Your task to perform on an android device: Add "macbook" to the cart on walmart.com Image 0: 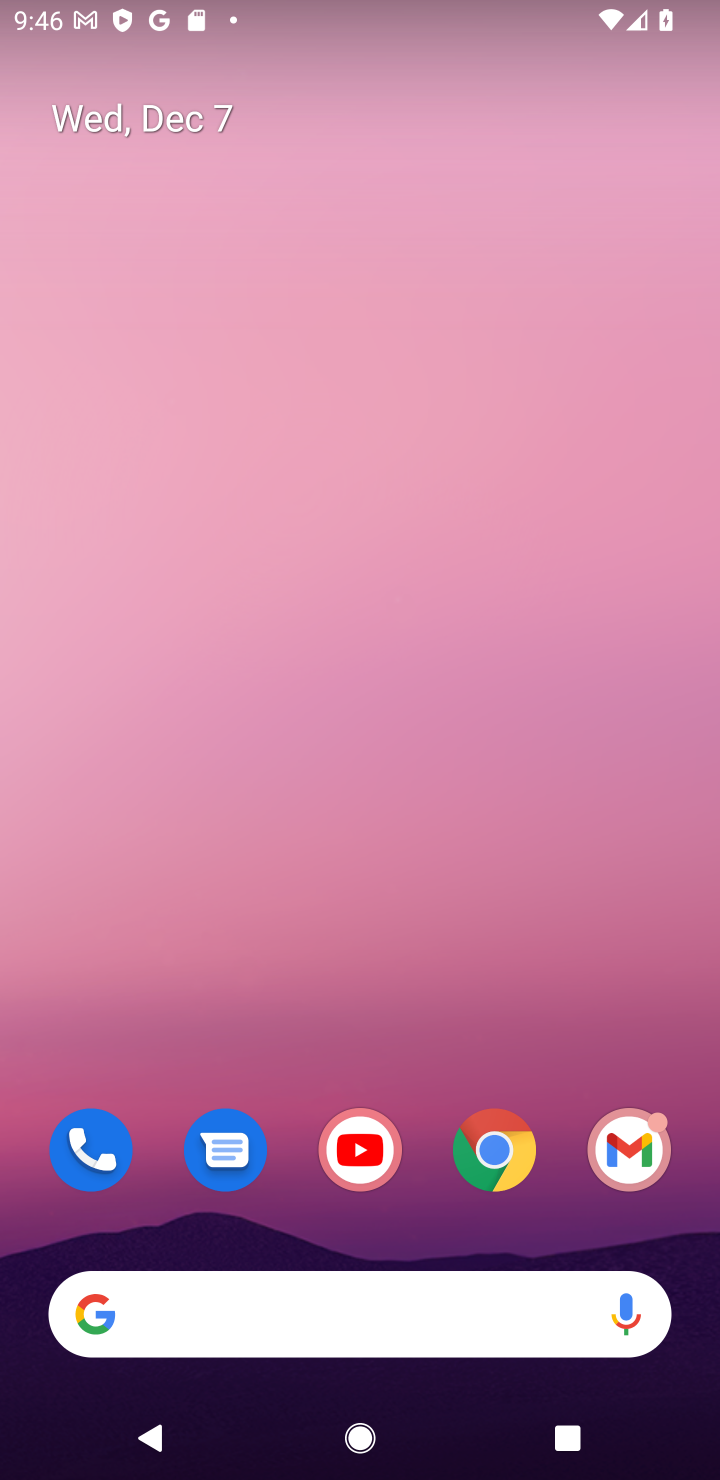
Step 0: click (510, 1170)
Your task to perform on an android device: Add "macbook" to the cart on walmart.com Image 1: 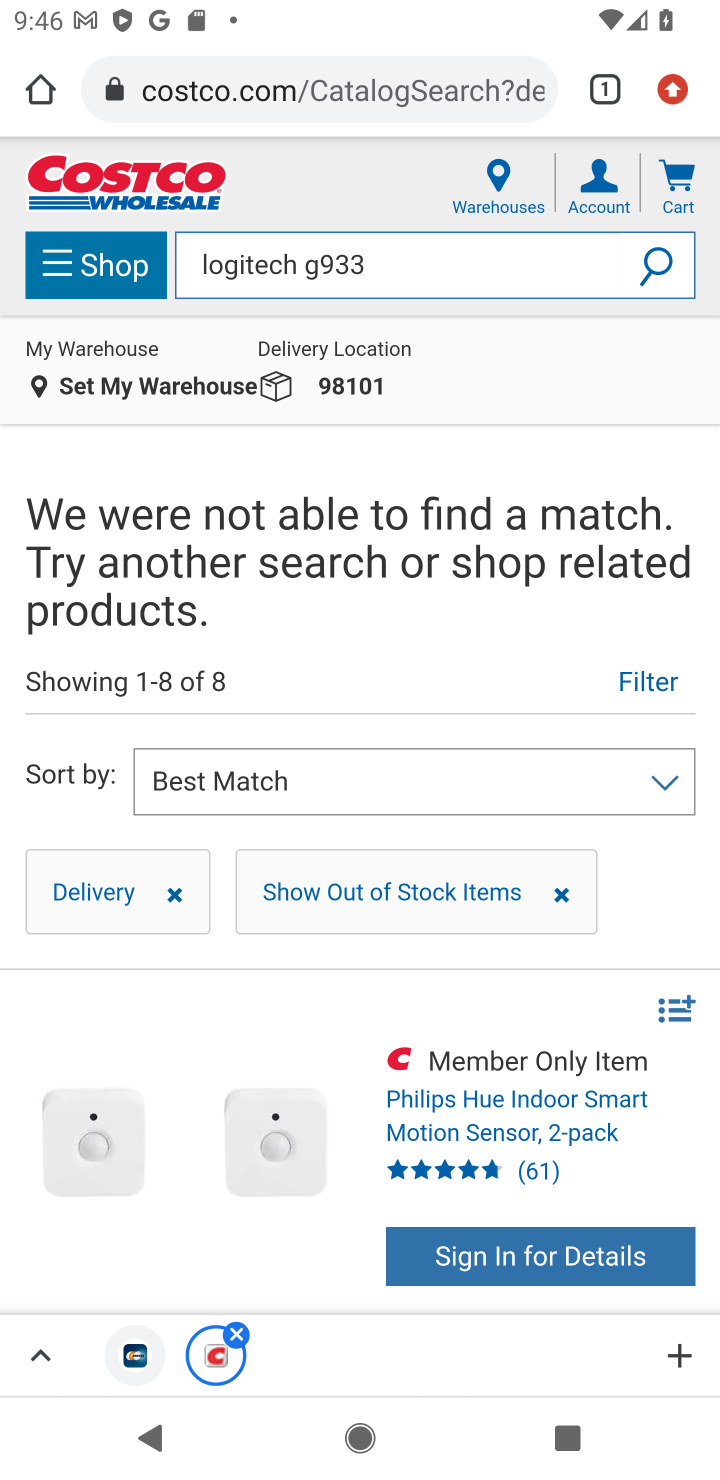
Step 1: click (415, 82)
Your task to perform on an android device: Add "macbook" to the cart on walmart.com Image 2: 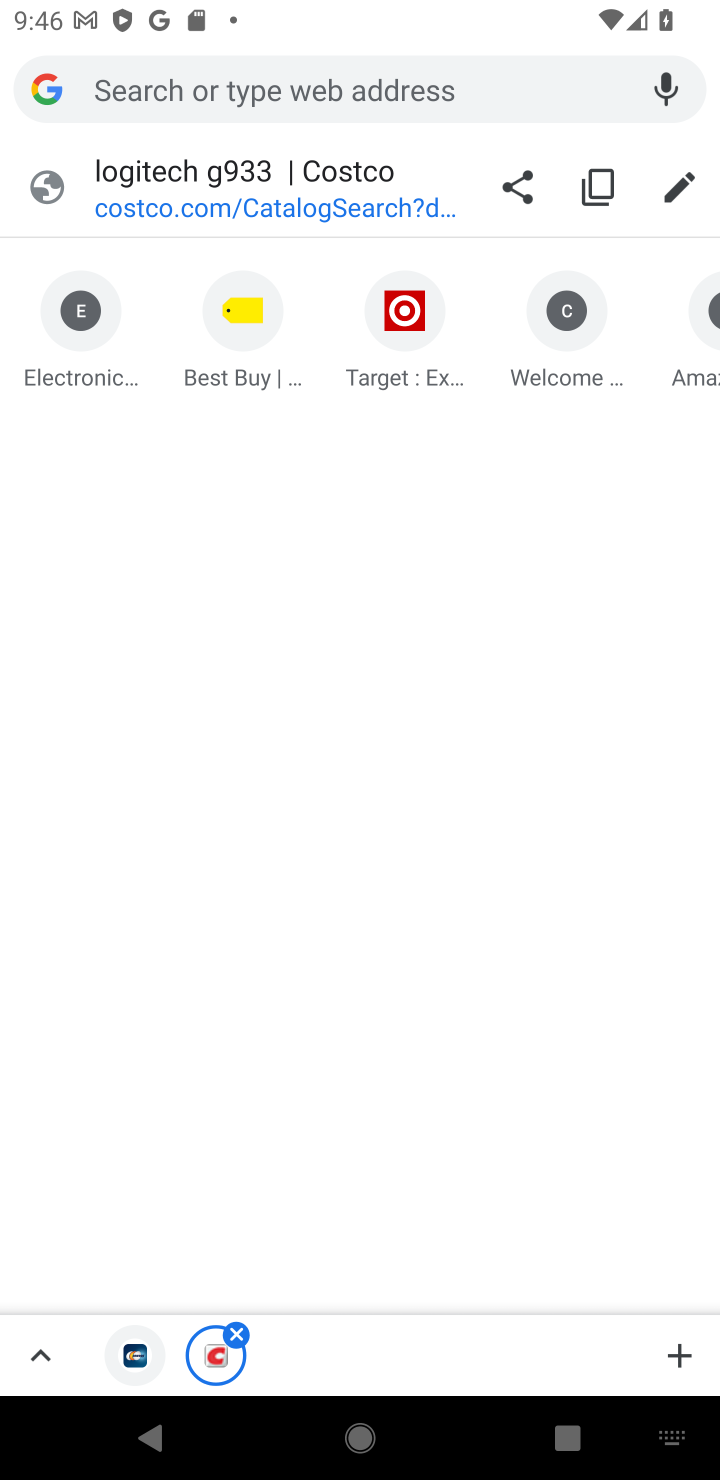
Step 2: type "walmart.com"
Your task to perform on an android device: Add "macbook" to the cart on walmart.com Image 3: 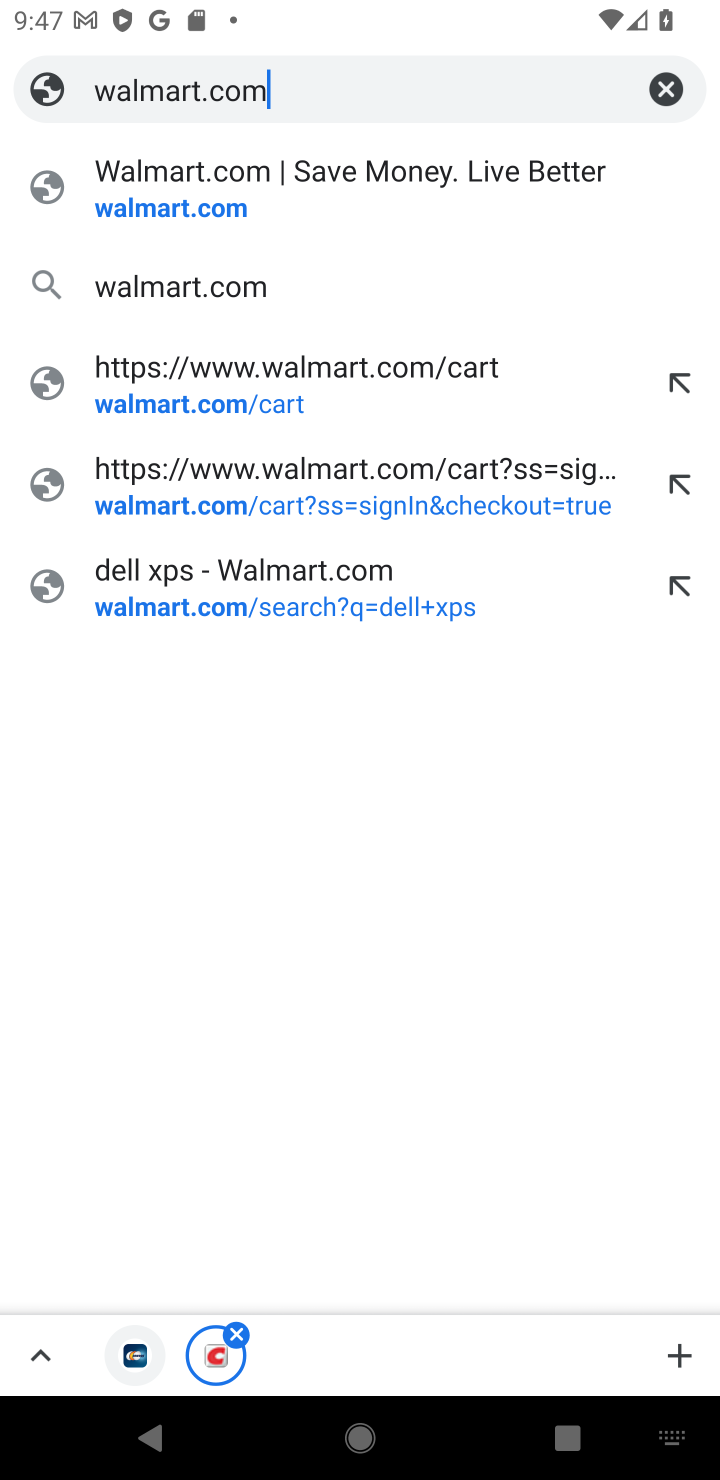
Step 3: click (241, 289)
Your task to perform on an android device: Add "macbook" to the cart on walmart.com Image 4: 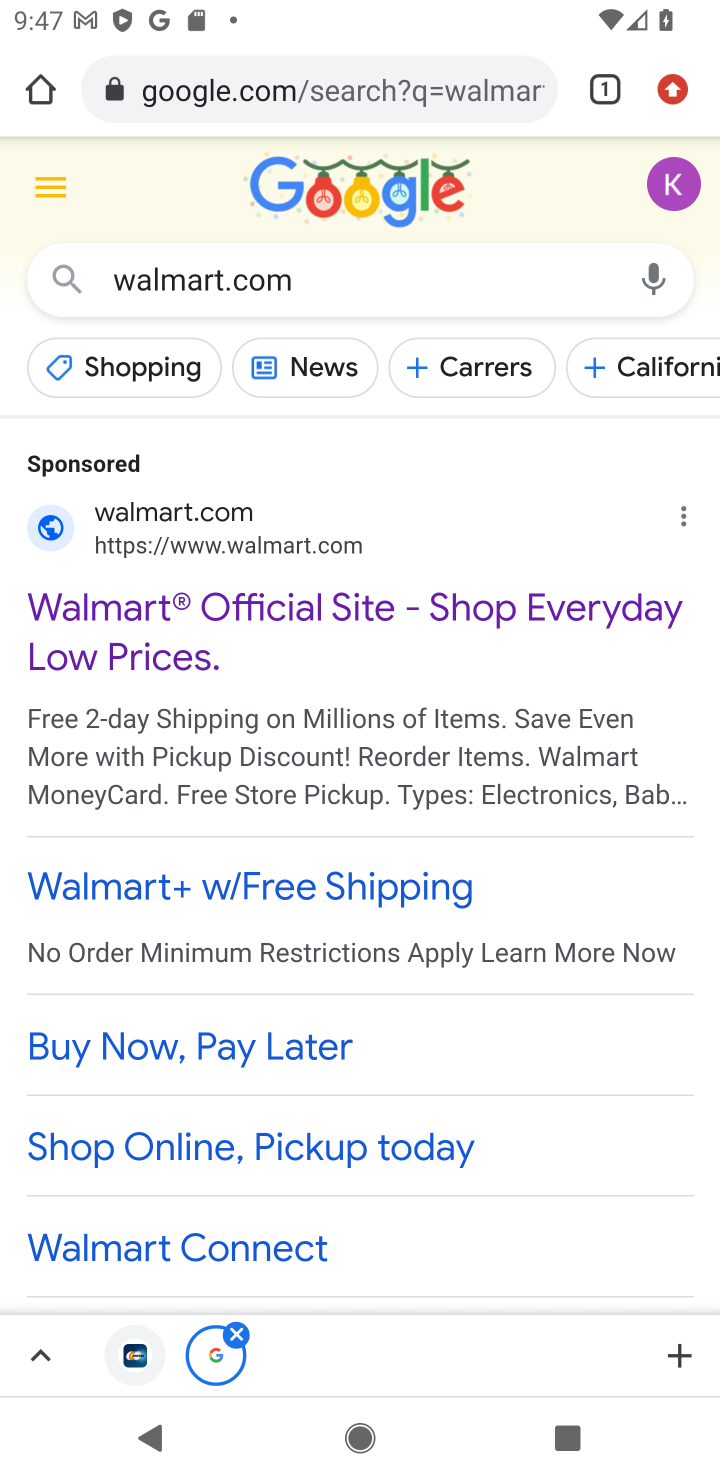
Step 4: drag from (494, 1127) to (491, 509)
Your task to perform on an android device: Add "macbook" to the cart on walmart.com Image 5: 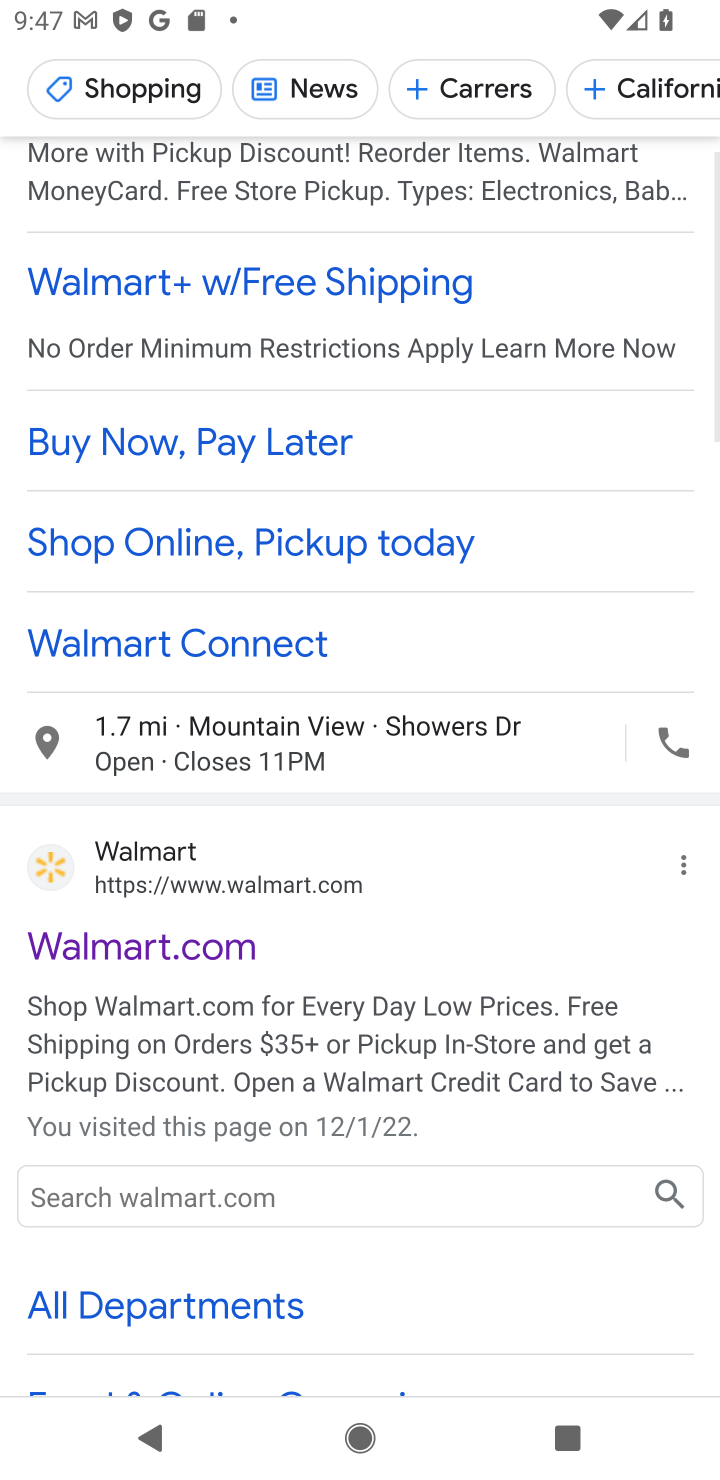
Step 5: click (292, 881)
Your task to perform on an android device: Add "macbook" to the cart on walmart.com Image 6: 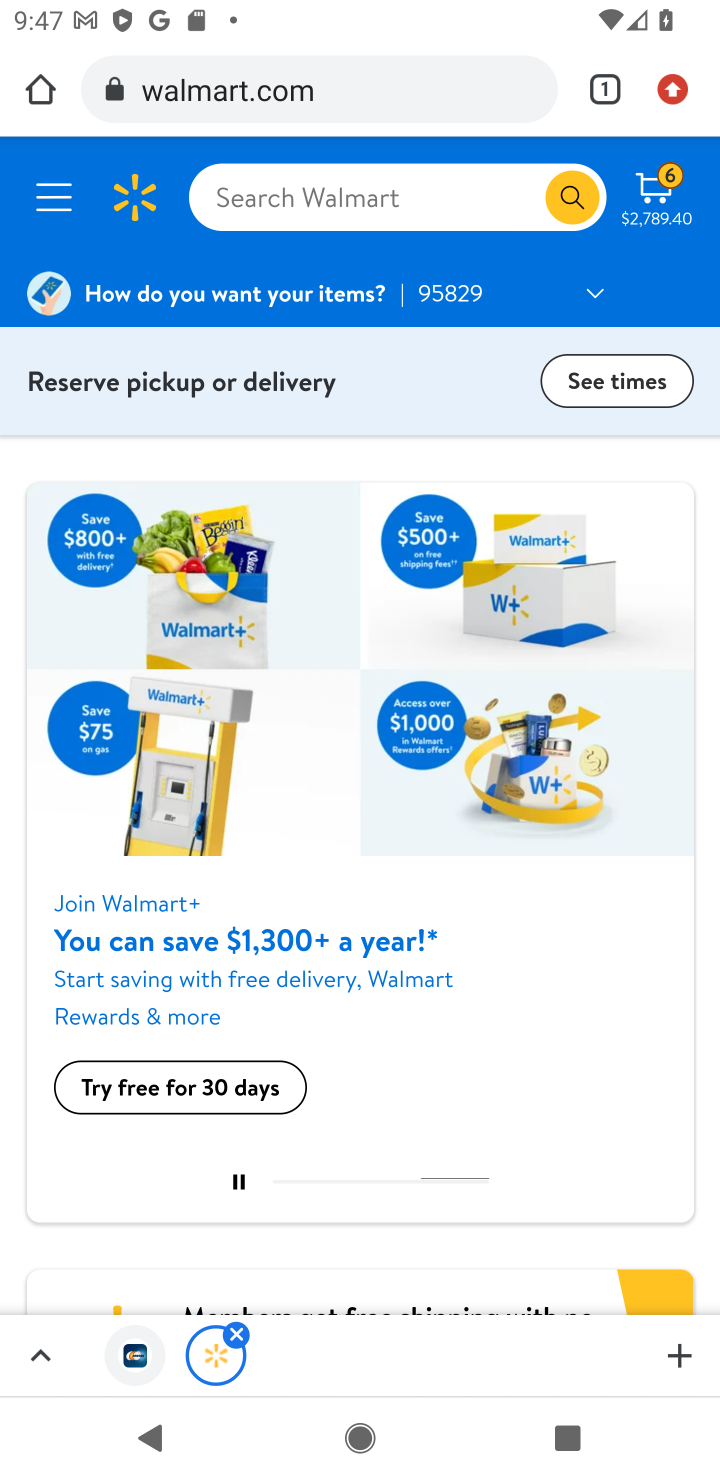
Step 6: click (432, 200)
Your task to perform on an android device: Add "macbook" to the cart on walmart.com Image 7: 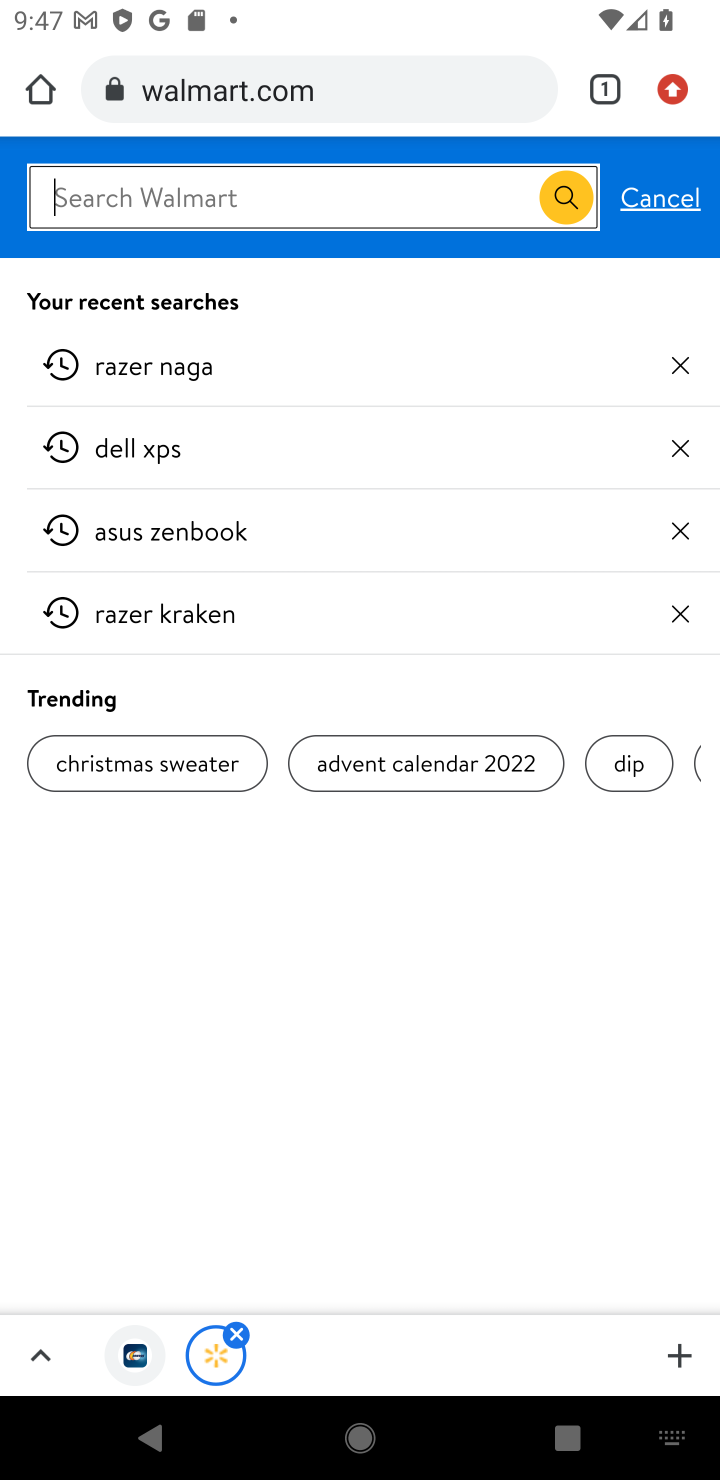
Step 7: type "macbook"
Your task to perform on an android device: Add "macbook" to the cart on walmart.com Image 8: 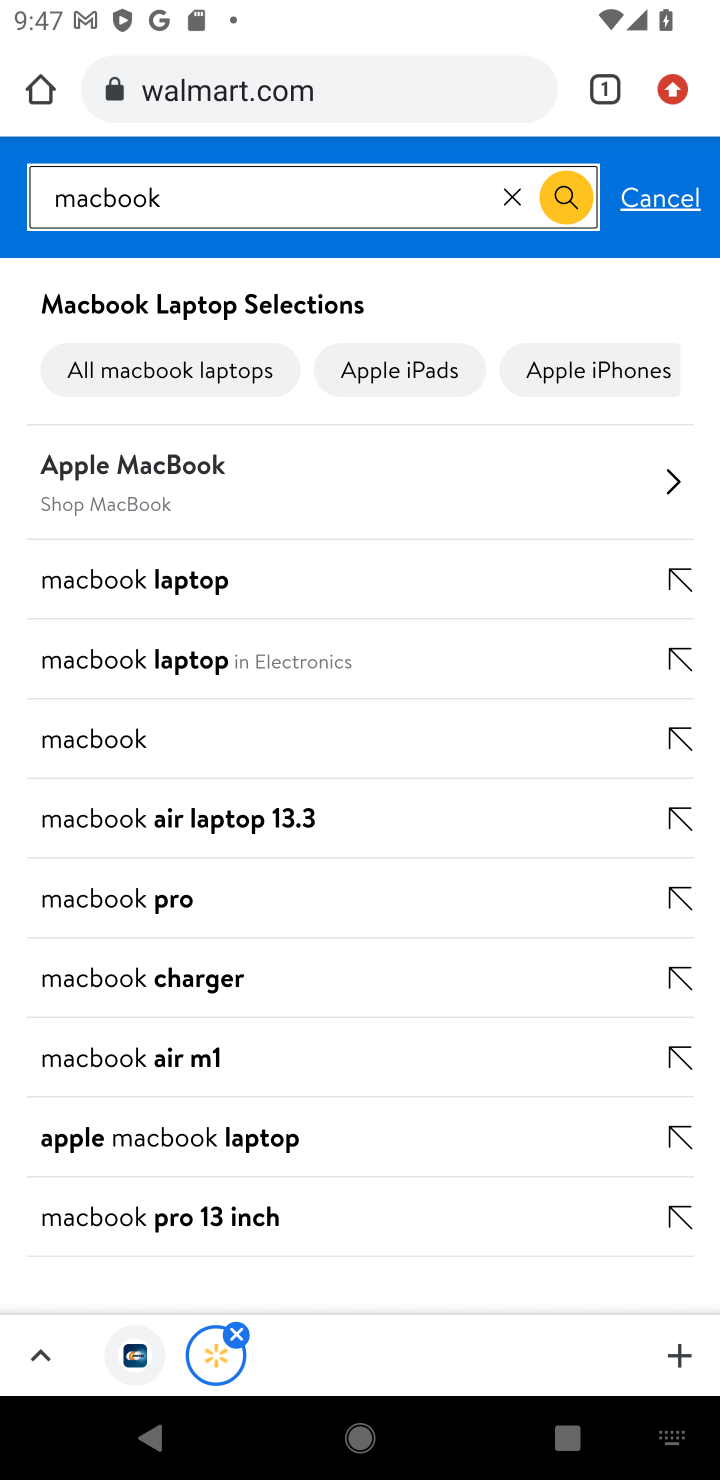
Step 8: click (104, 729)
Your task to perform on an android device: Add "macbook" to the cart on walmart.com Image 9: 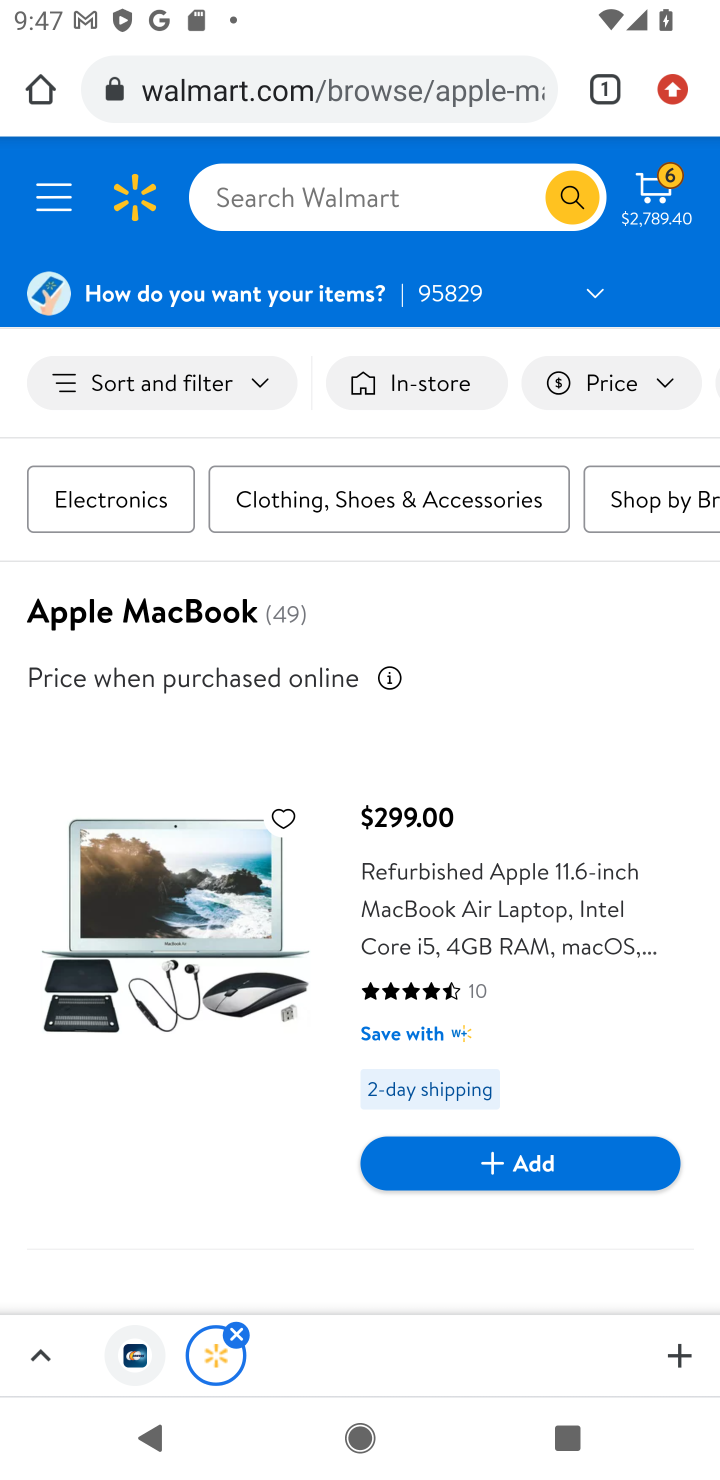
Step 9: drag from (515, 866) to (481, 304)
Your task to perform on an android device: Add "macbook" to the cart on walmart.com Image 10: 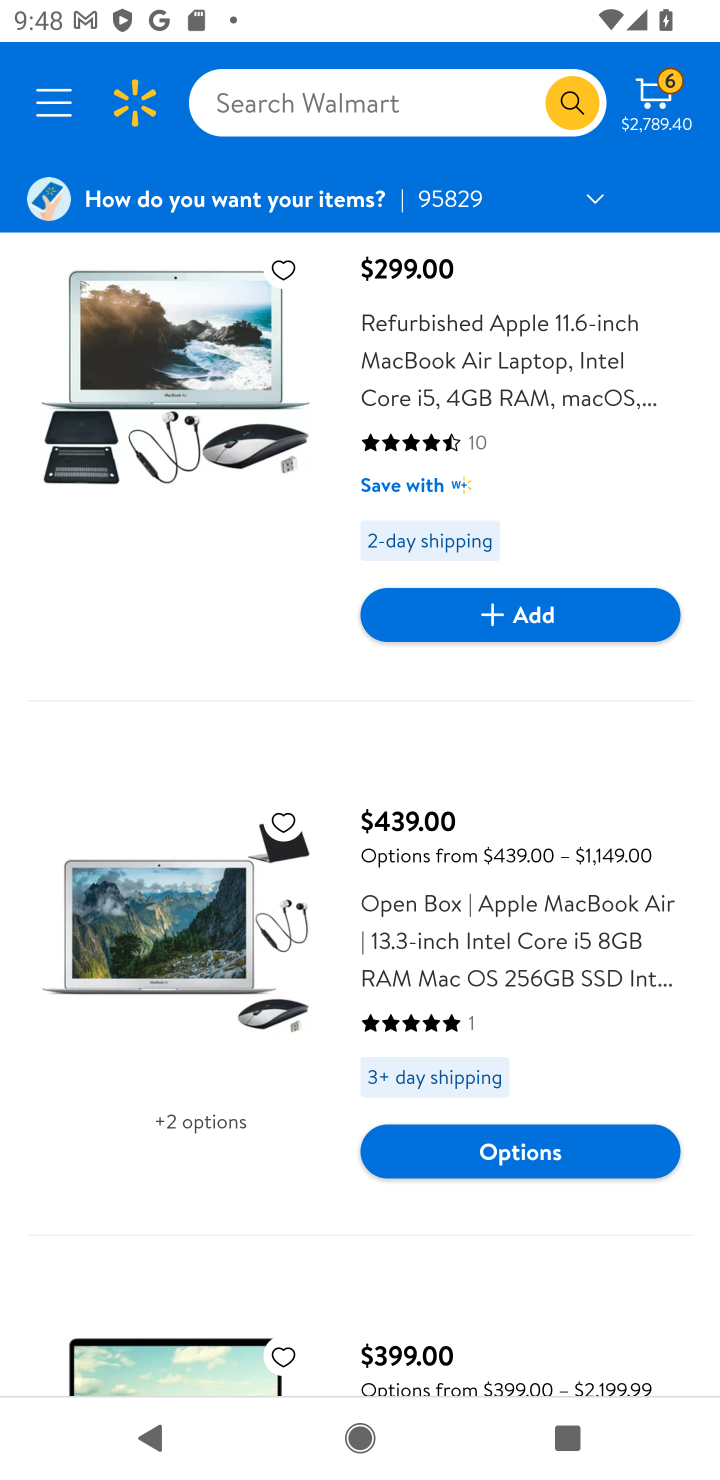
Step 10: drag from (456, 608) to (579, 1085)
Your task to perform on an android device: Add "macbook" to the cart on walmart.com Image 11: 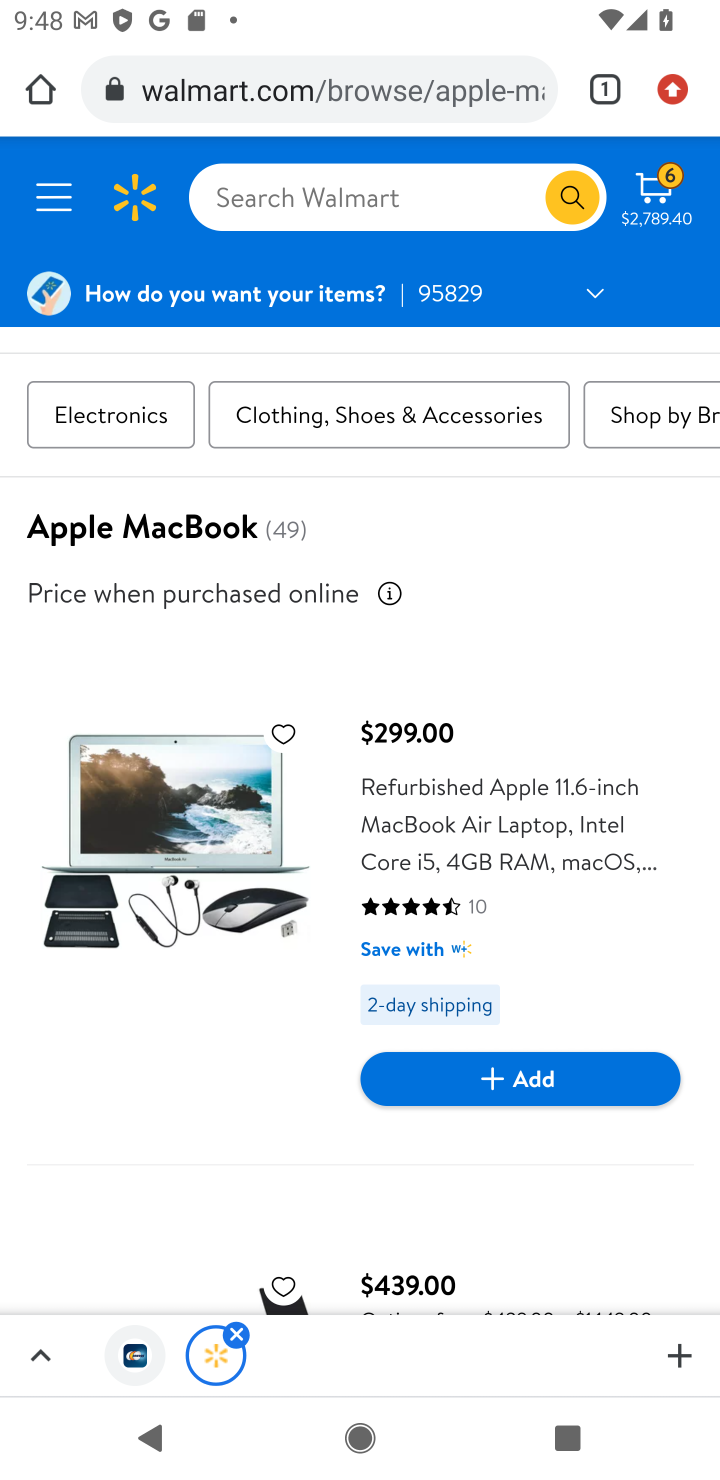
Step 11: drag from (577, 844) to (551, 299)
Your task to perform on an android device: Add "macbook" to the cart on walmart.com Image 12: 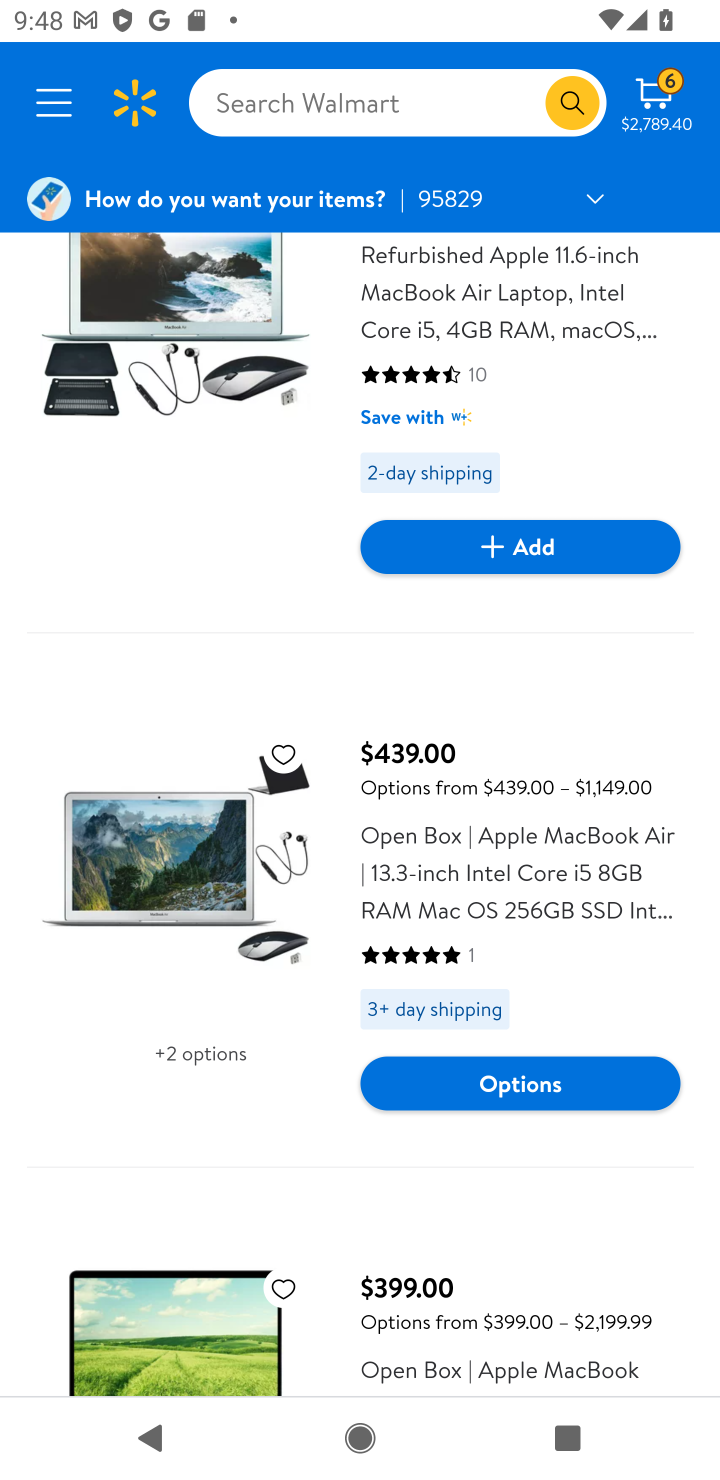
Step 12: drag from (593, 1130) to (562, 607)
Your task to perform on an android device: Add "macbook" to the cart on walmart.com Image 13: 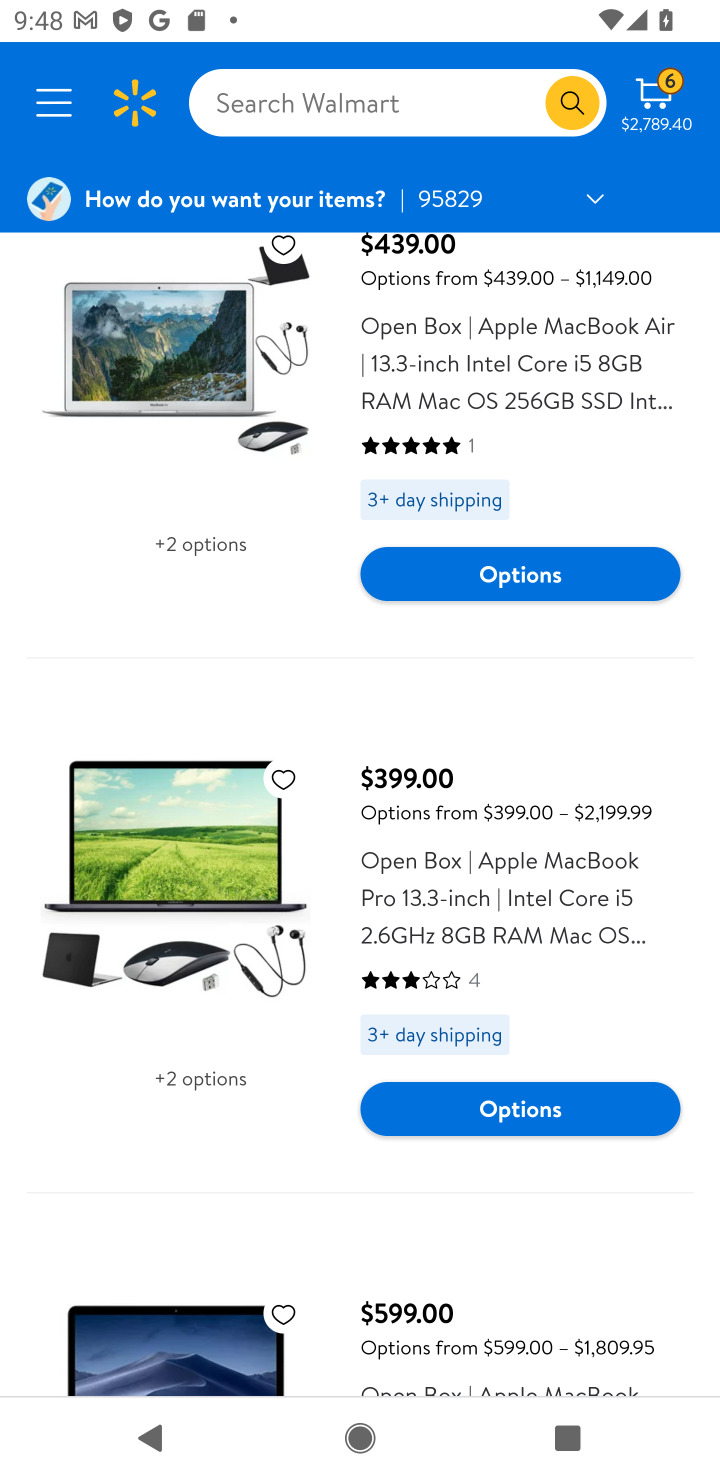
Step 13: drag from (624, 1300) to (595, 829)
Your task to perform on an android device: Add "macbook" to the cart on walmart.com Image 14: 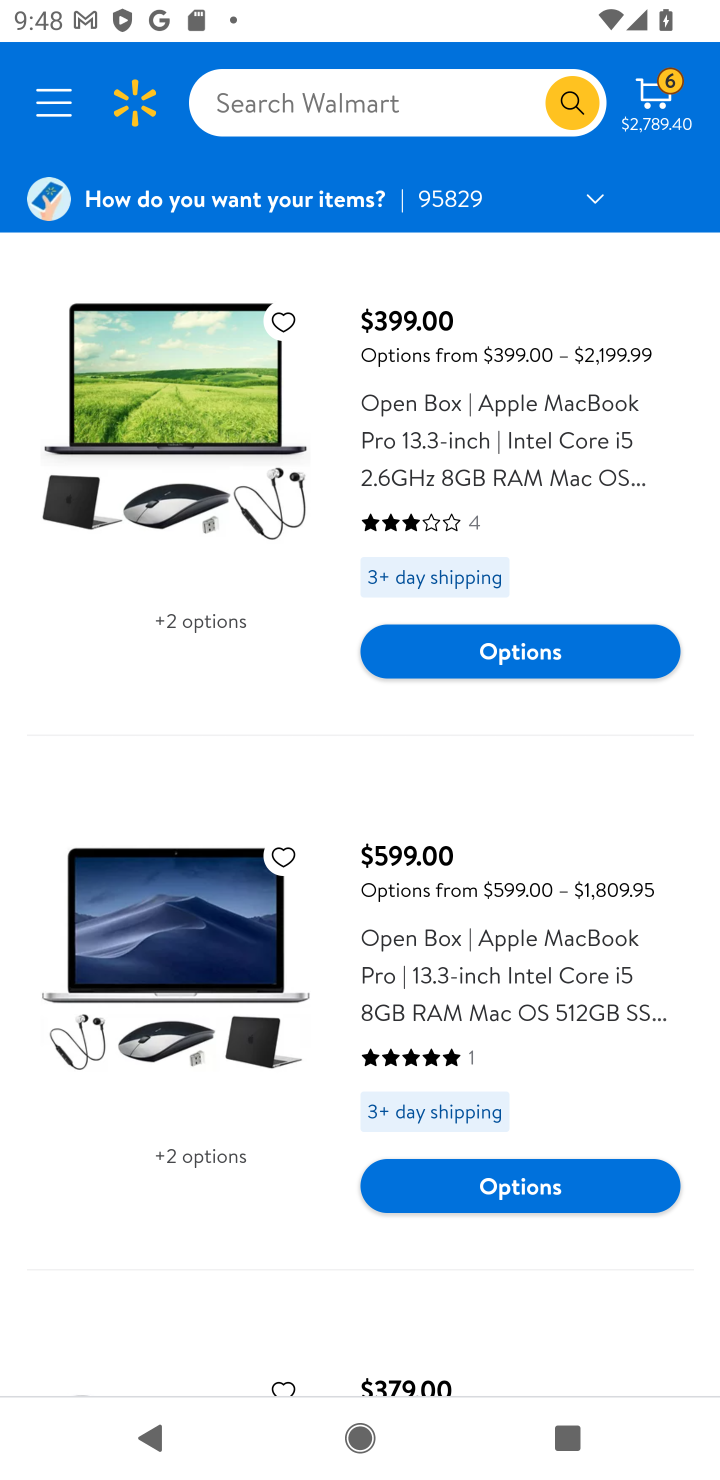
Step 14: drag from (558, 988) to (591, 558)
Your task to perform on an android device: Add "macbook" to the cart on walmart.com Image 15: 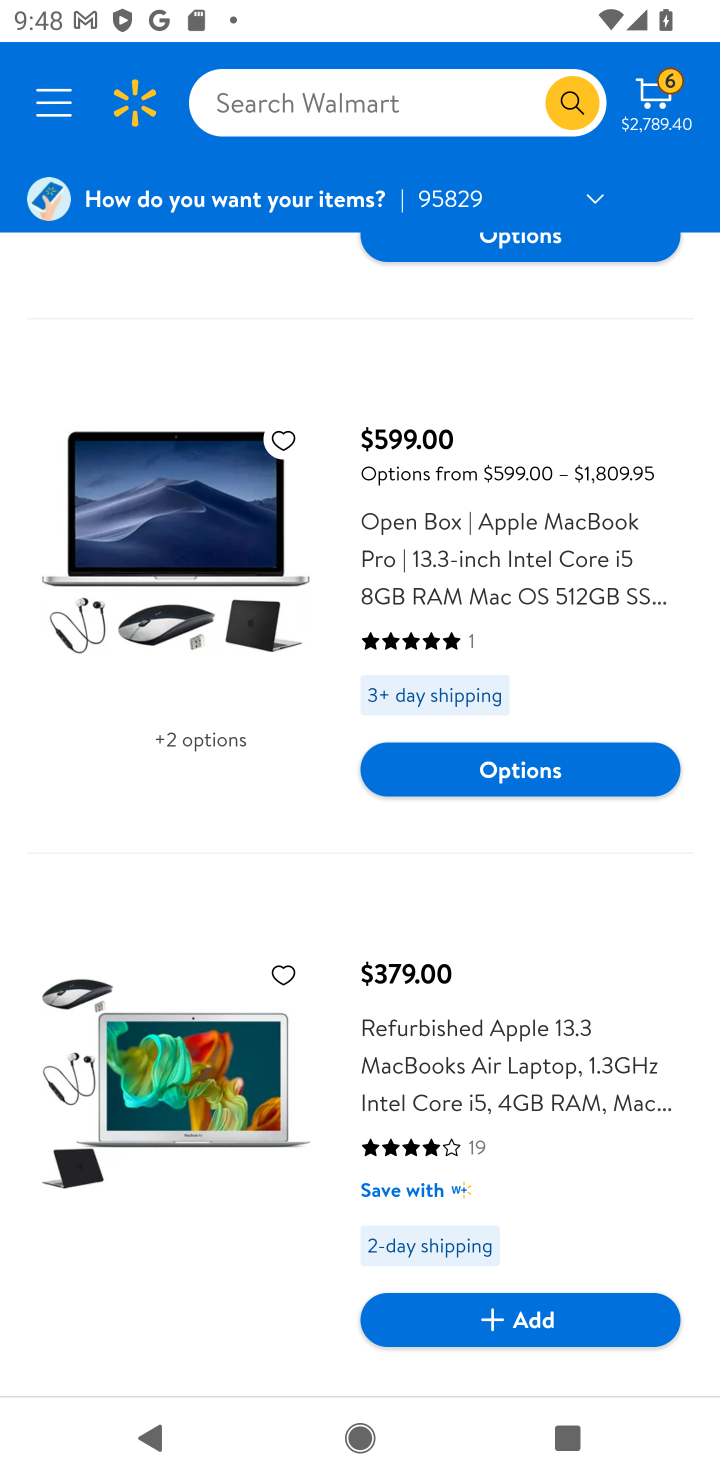
Step 15: drag from (530, 540) to (608, 1411)
Your task to perform on an android device: Add "macbook" to the cart on walmart.com Image 16: 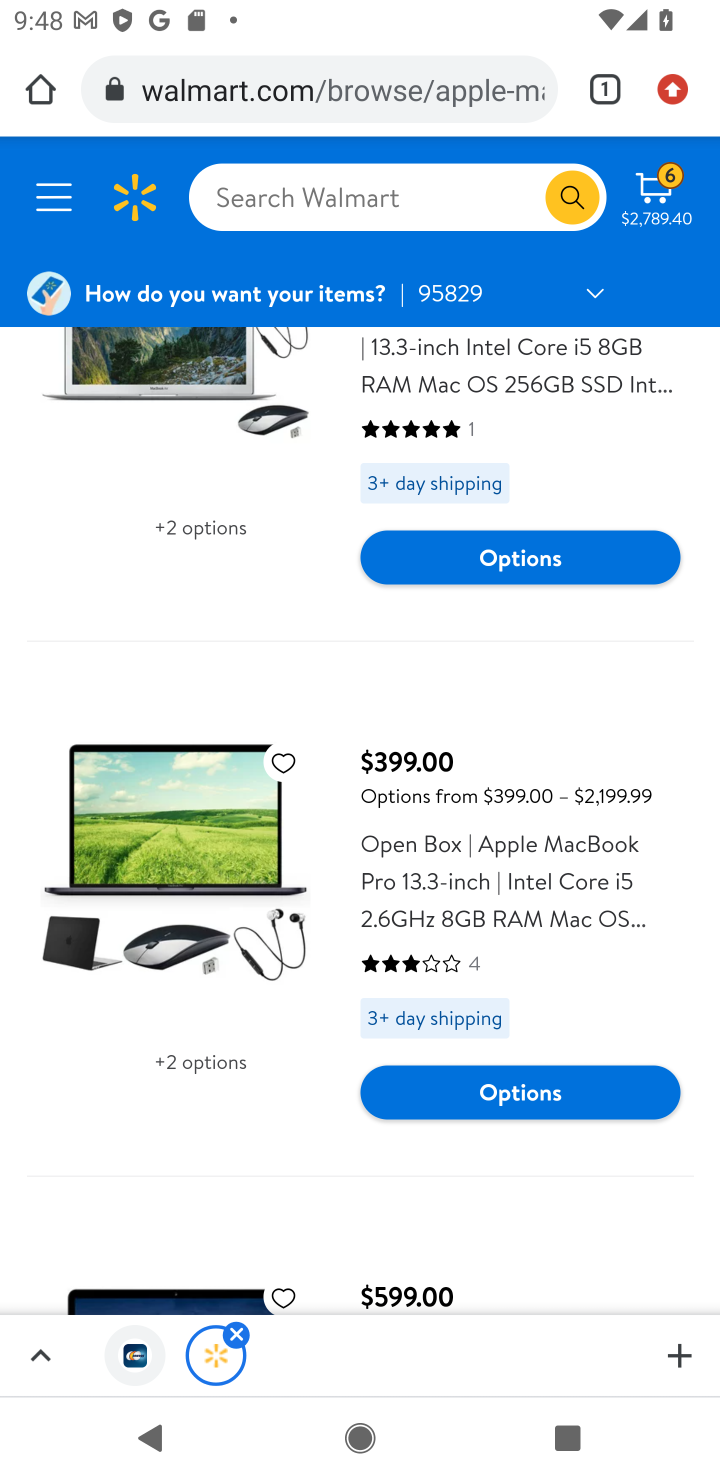
Step 16: drag from (537, 808) to (704, 1413)
Your task to perform on an android device: Add "macbook" to the cart on walmart.com Image 17: 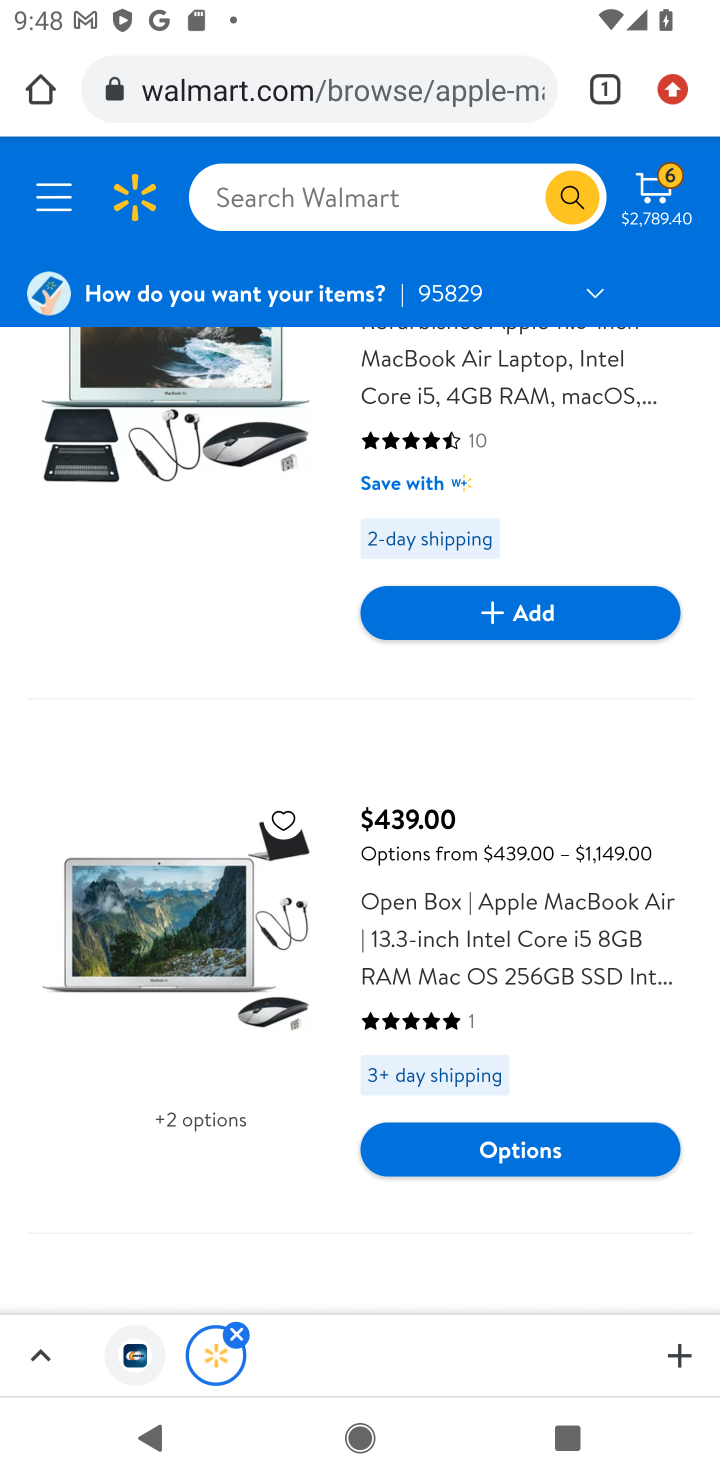
Step 17: drag from (550, 465) to (604, 1260)
Your task to perform on an android device: Add "macbook" to the cart on walmart.com Image 18: 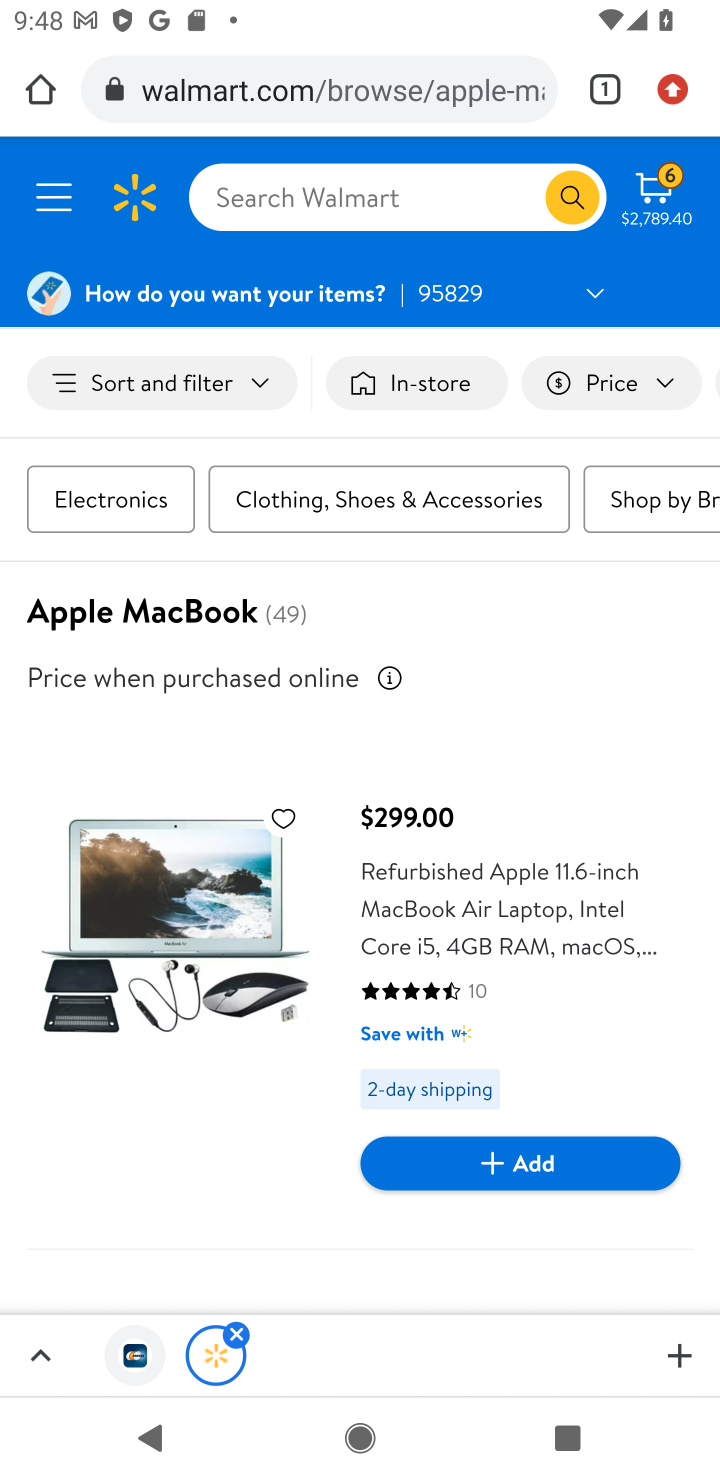
Step 18: click (132, 880)
Your task to perform on an android device: Add "macbook" to the cart on walmart.com Image 19: 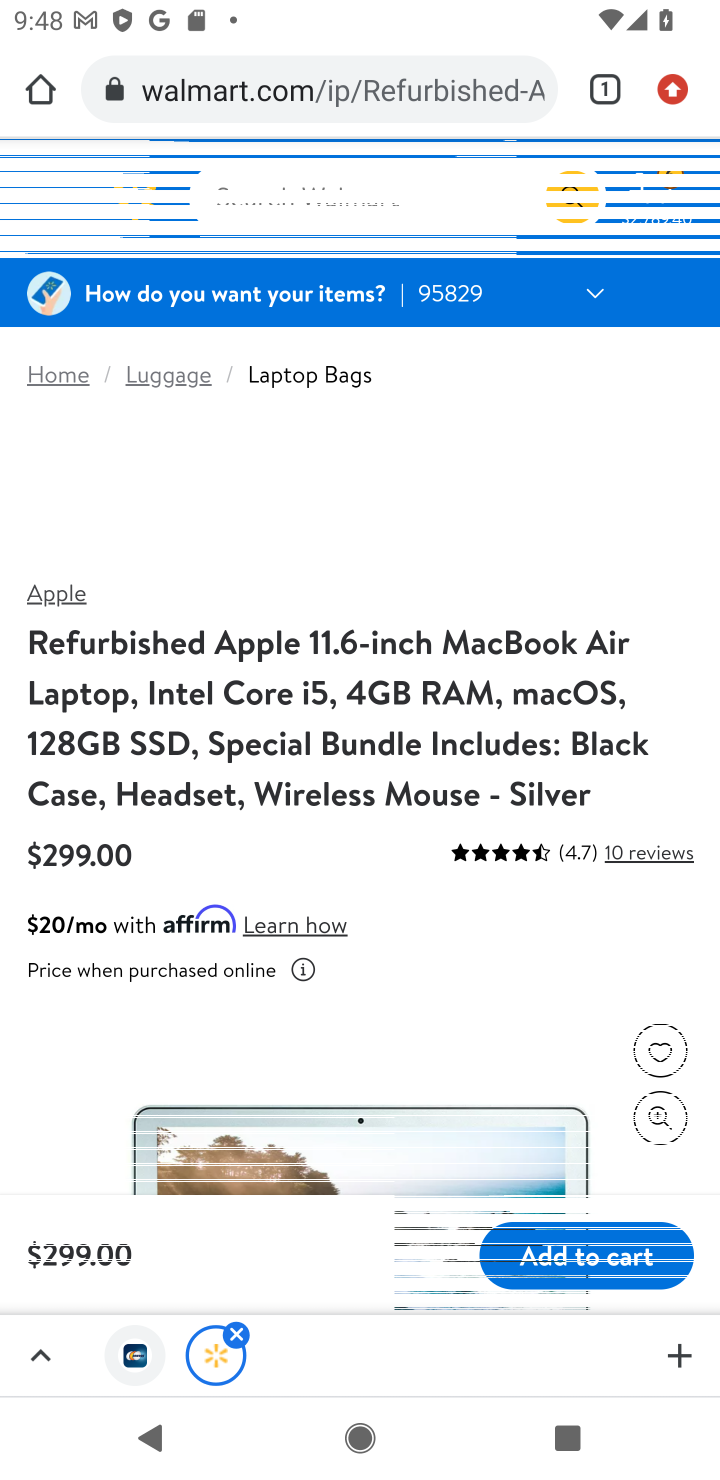
Step 19: task complete